Your task to perform on an android device: turn smart compose on in the gmail app Image 0: 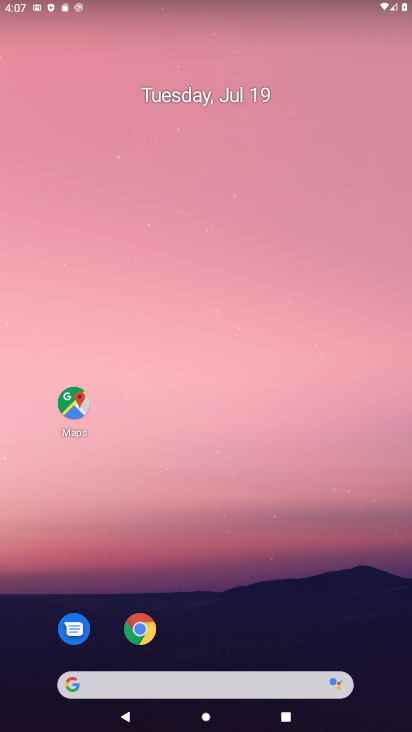
Step 0: click (132, 168)
Your task to perform on an android device: turn smart compose on in the gmail app Image 1: 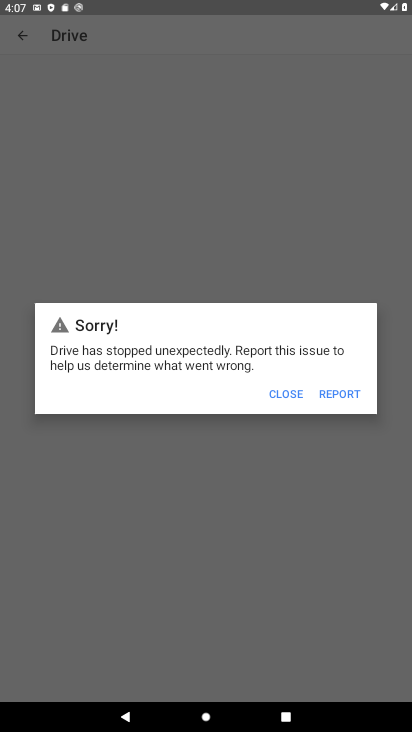
Step 1: drag from (226, 587) to (229, 167)
Your task to perform on an android device: turn smart compose on in the gmail app Image 2: 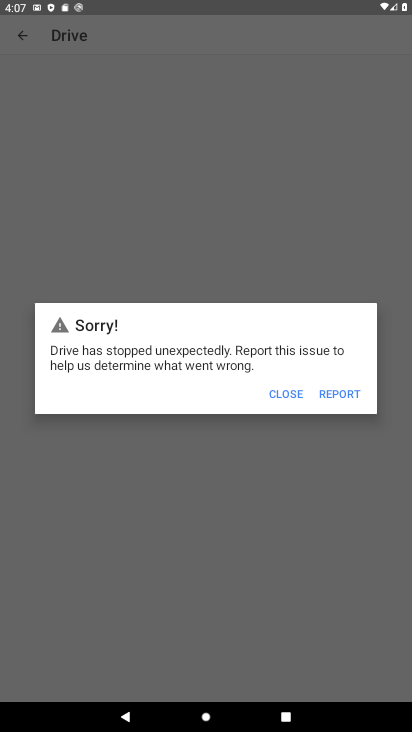
Step 2: click (196, 136)
Your task to perform on an android device: turn smart compose on in the gmail app Image 3: 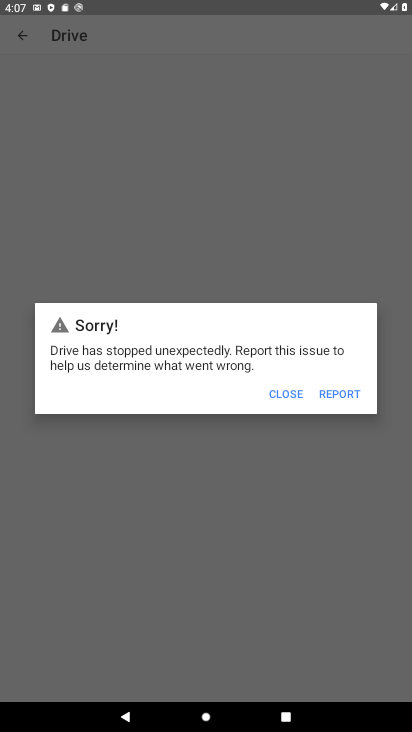
Step 3: click (287, 403)
Your task to perform on an android device: turn smart compose on in the gmail app Image 4: 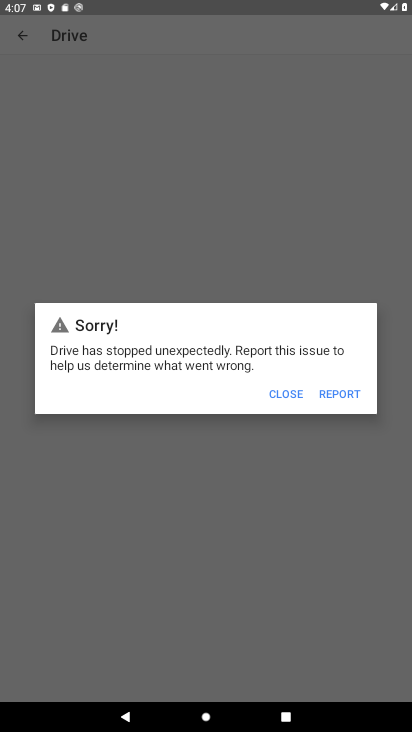
Step 4: click (287, 403)
Your task to perform on an android device: turn smart compose on in the gmail app Image 5: 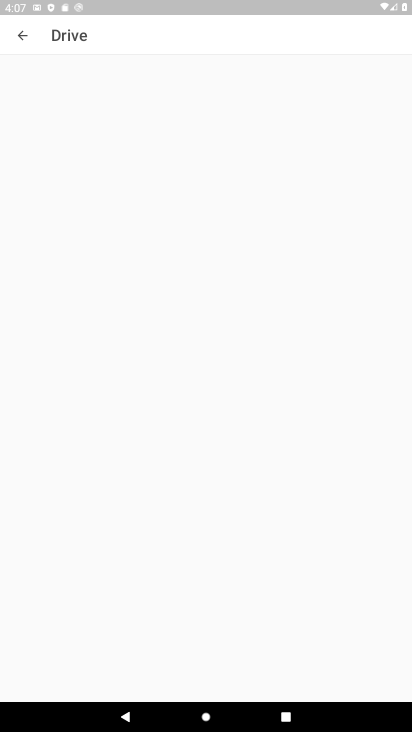
Step 5: click (287, 403)
Your task to perform on an android device: turn smart compose on in the gmail app Image 6: 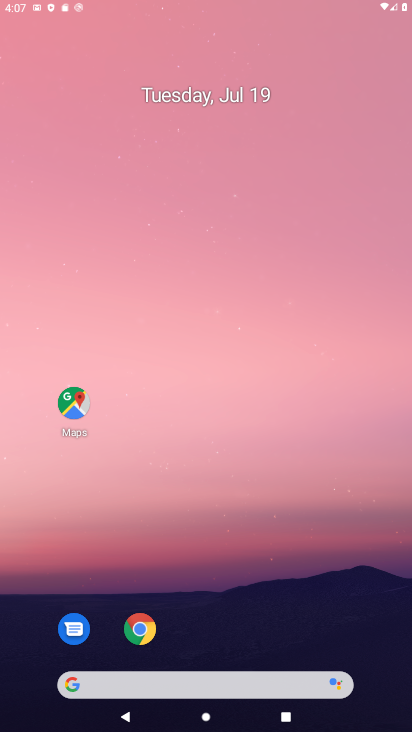
Step 6: drag from (259, 356) to (250, 232)
Your task to perform on an android device: turn smart compose on in the gmail app Image 7: 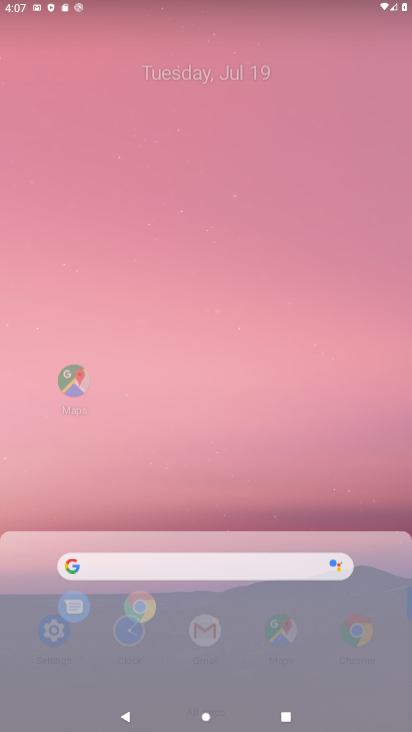
Step 7: drag from (216, 400) to (213, 314)
Your task to perform on an android device: turn smart compose on in the gmail app Image 8: 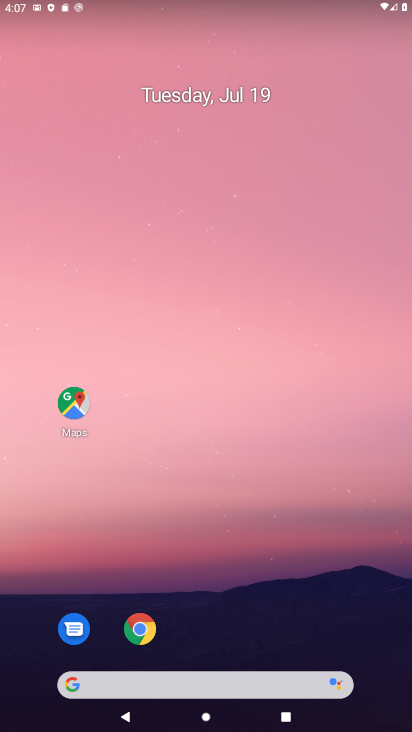
Step 8: drag from (281, 649) to (182, 174)
Your task to perform on an android device: turn smart compose on in the gmail app Image 9: 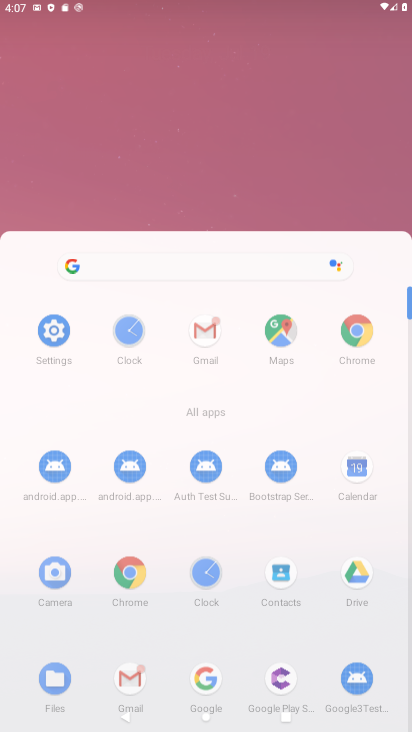
Step 9: drag from (278, 450) to (218, 84)
Your task to perform on an android device: turn smart compose on in the gmail app Image 10: 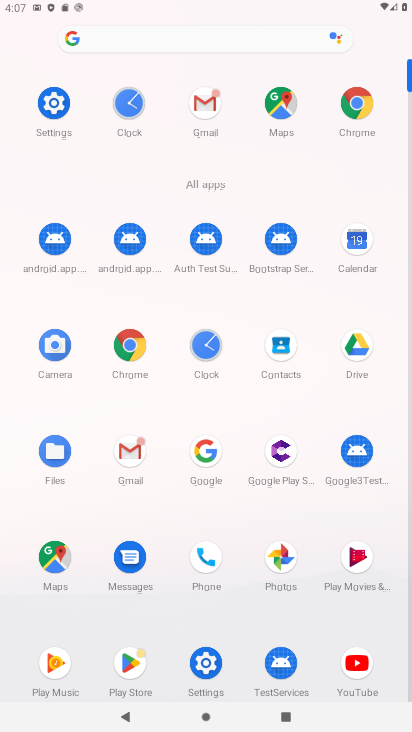
Step 10: click (116, 446)
Your task to perform on an android device: turn smart compose on in the gmail app Image 11: 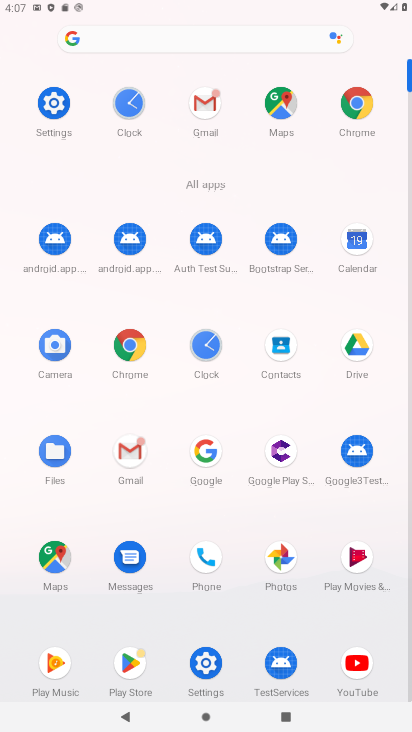
Step 11: click (129, 450)
Your task to perform on an android device: turn smart compose on in the gmail app Image 12: 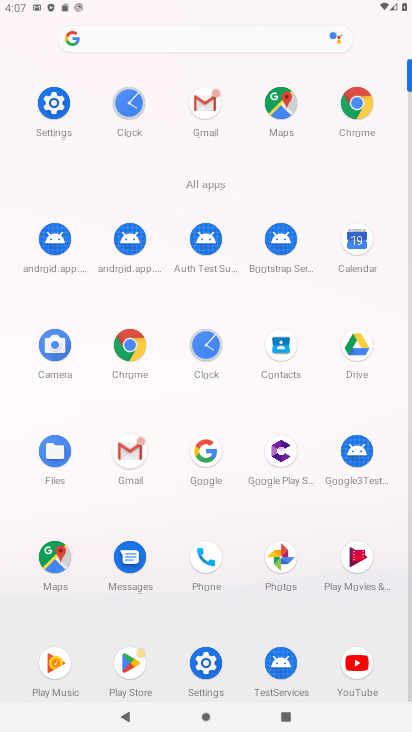
Step 12: click (129, 450)
Your task to perform on an android device: turn smart compose on in the gmail app Image 13: 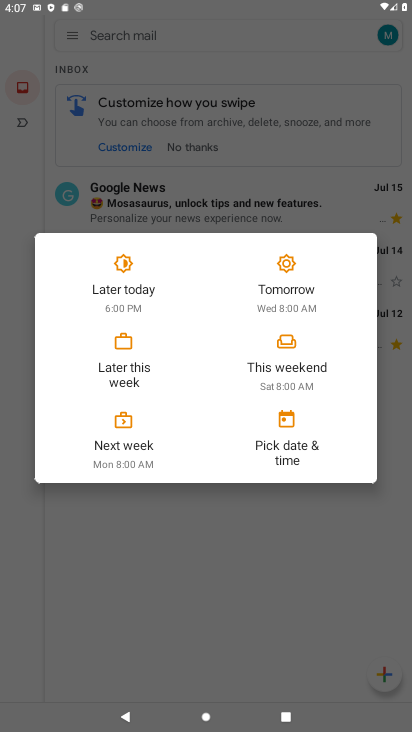
Step 13: click (285, 153)
Your task to perform on an android device: turn smart compose on in the gmail app Image 14: 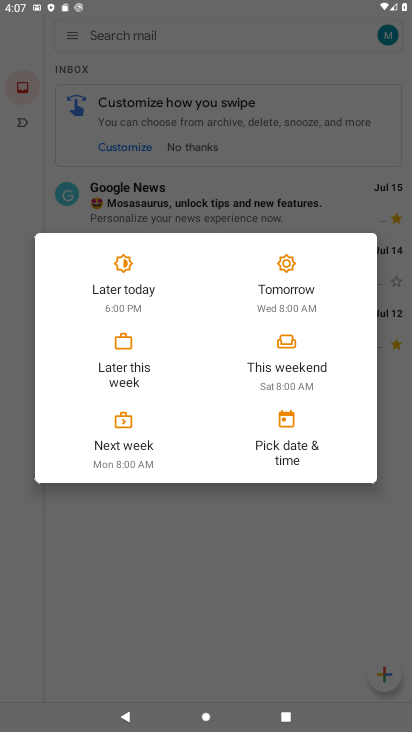
Step 14: click (294, 163)
Your task to perform on an android device: turn smart compose on in the gmail app Image 15: 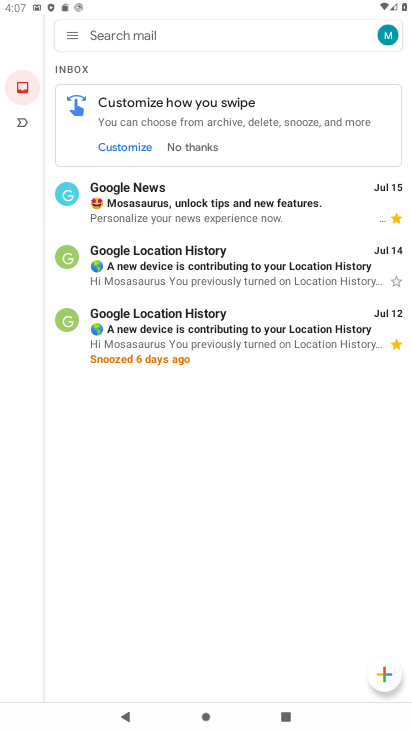
Step 15: press back button
Your task to perform on an android device: turn smart compose on in the gmail app Image 16: 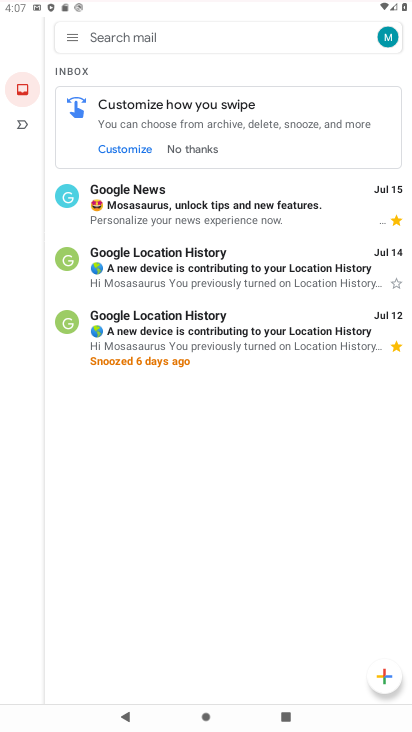
Step 16: click (64, 25)
Your task to perform on an android device: turn smart compose on in the gmail app Image 17: 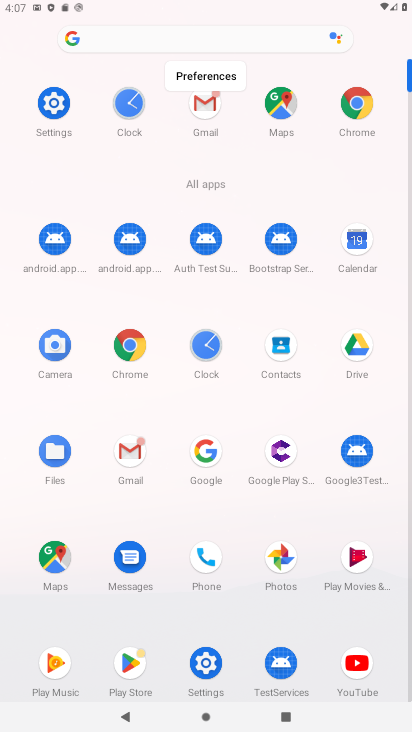
Step 17: click (206, 105)
Your task to perform on an android device: turn smart compose on in the gmail app Image 18: 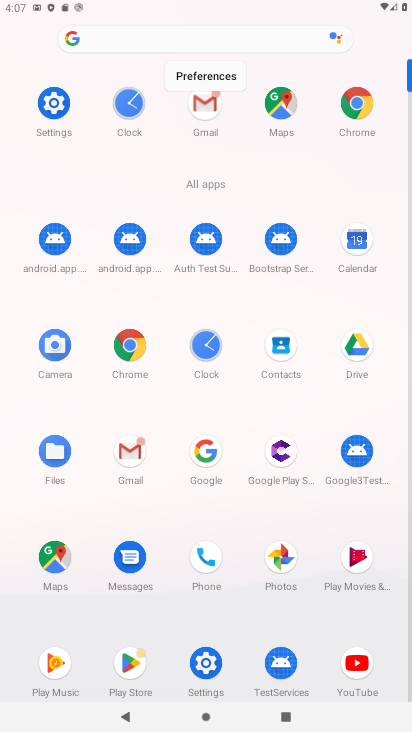
Step 18: click (207, 104)
Your task to perform on an android device: turn smart compose on in the gmail app Image 19: 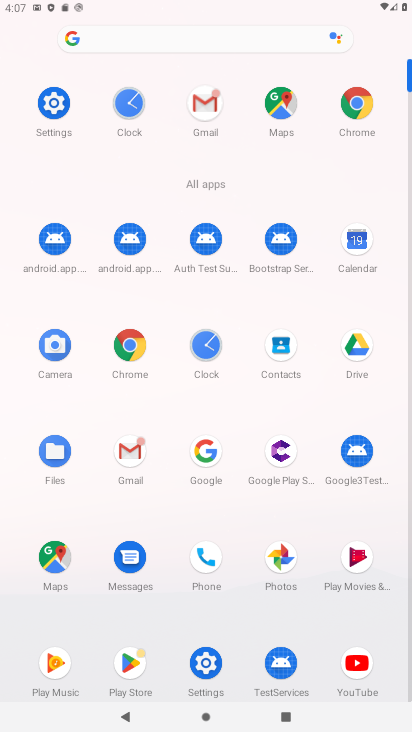
Step 19: click (207, 104)
Your task to perform on an android device: turn smart compose on in the gmail app Image 20: 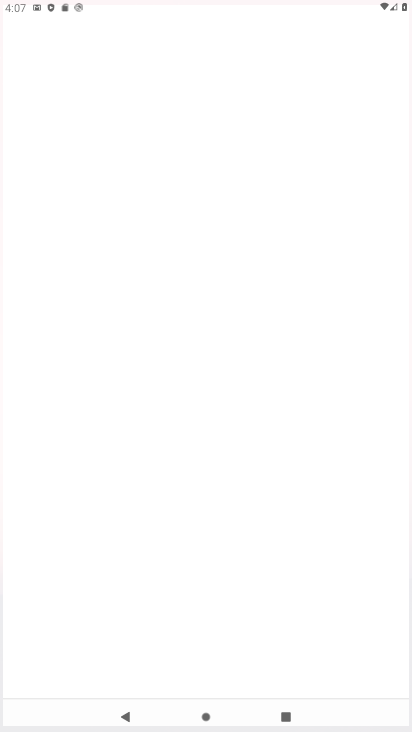
Step 20: click (205, 109)
Your task to perform on an android device: turn smart compose on in the gmail app Image 21: 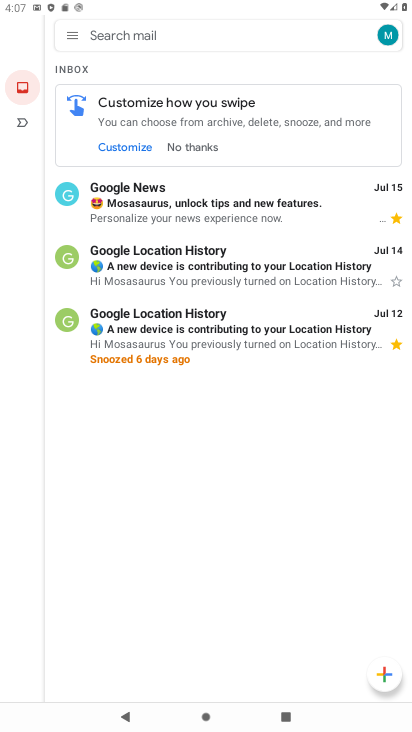
Step 21: click (42, 35)
Your task to perform on an android device: turn smart compose on in the gmail app Image 22: 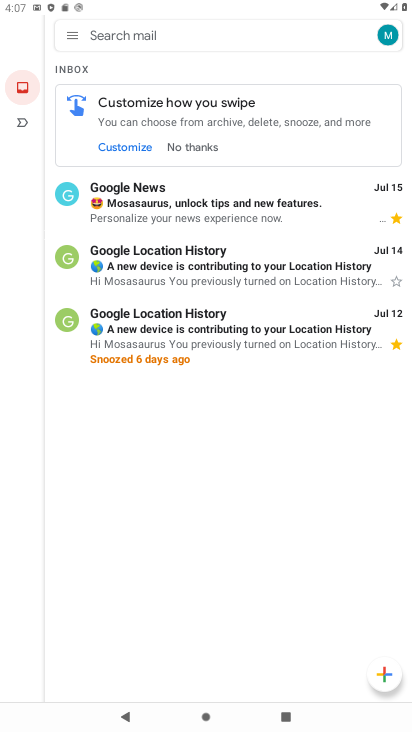
Step 22: drag from (41, 34) to (151, 601)
Your task to perform on an android device: turn smart compose on in the gmail app Image 23: 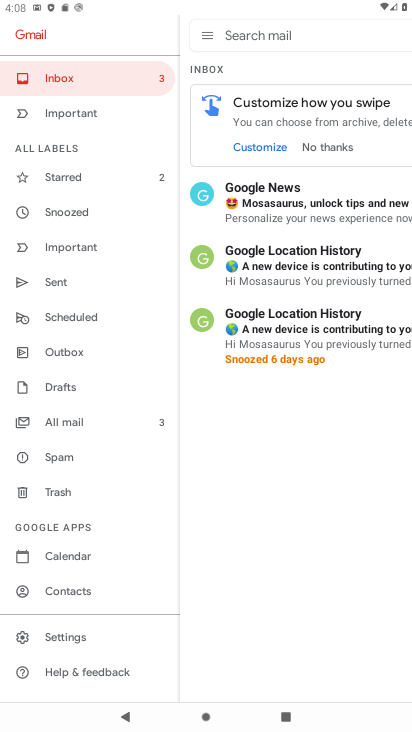
Step 23: click (75, 632)
Your task to perform on an android device: turn smart compose on in the gmail app Image 24: 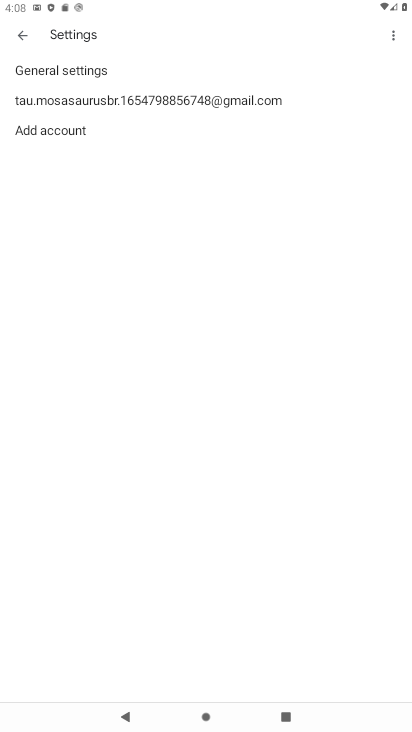
Step 24: click (112, 97)
Your task to perform on an android device: turn smart compose on in the gmail app Image 25: 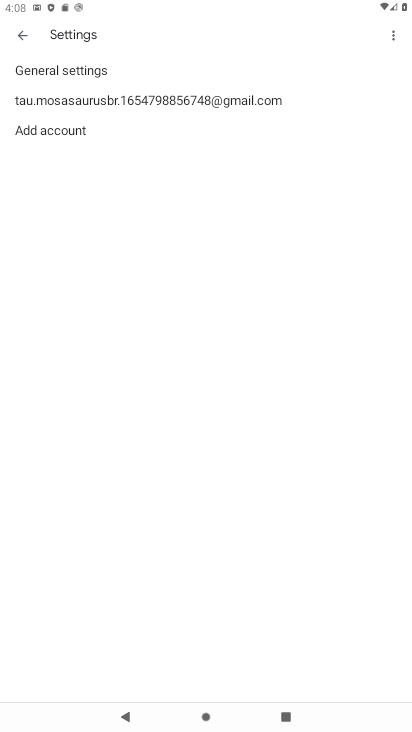
Step 25: click (110, 99)
Your task to perform on an android device: turn smart compose on in the gmail app Image 26: 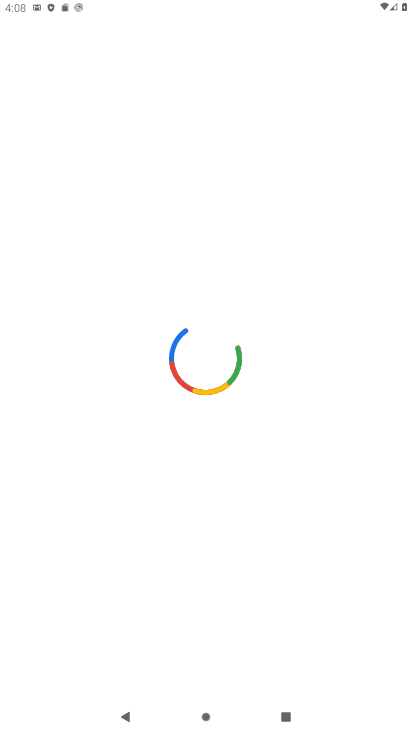
Step 26: press back button
Your task to perform on an android device: turn smart compose on in the gmail app Image 27: 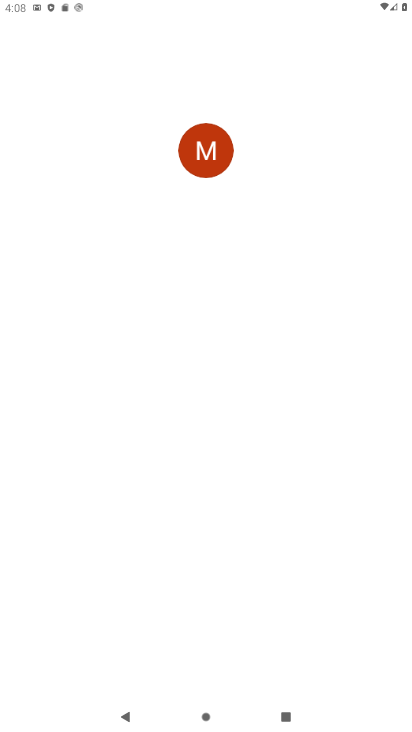
Step 27: press back button
Your task to perform on an android device: turn smart compose on in the gmail app Image 28: 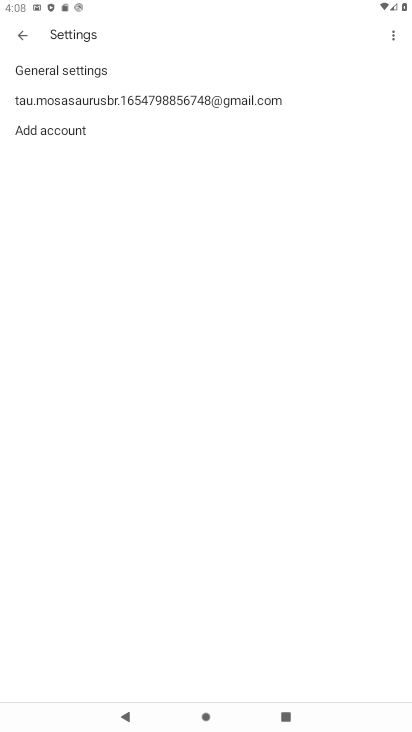
Step 28: click (79, 110)
Your task to perform on an android device: turn smart compose on in the gmail app Image 29: 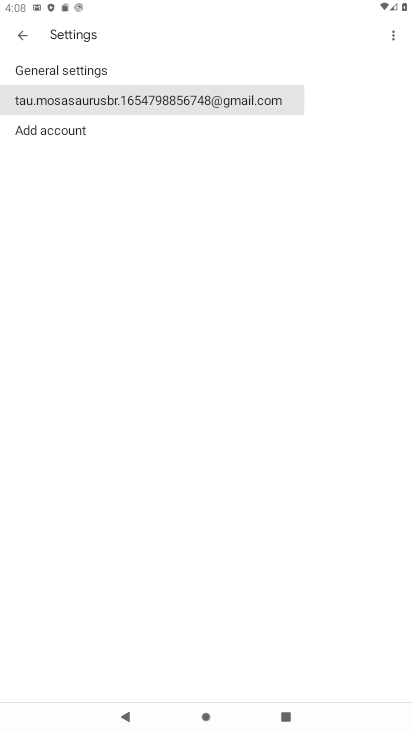
Step 29: click (83, 104)
Your task to perform on an android device: turn smart compose on in the gmail app Image 30: 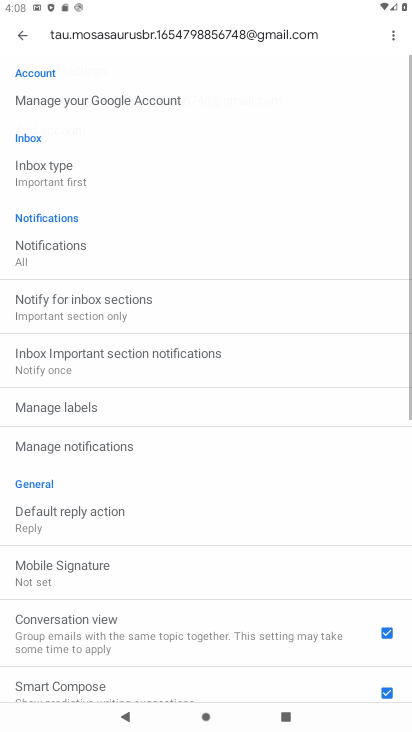
Step 30: click (81, 107)
Your task to perform on an android device: turn smart compose on in the gmail app Image 31: 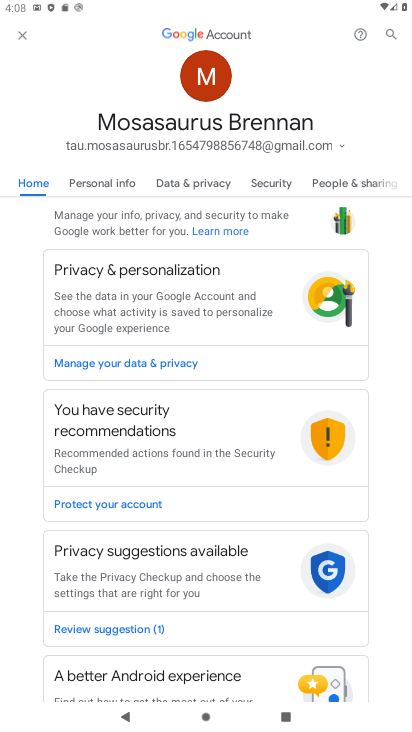
Step 31: click (13, 28)
Your task to perform on an android device: turn smart compose on in the gmail app Image 32: 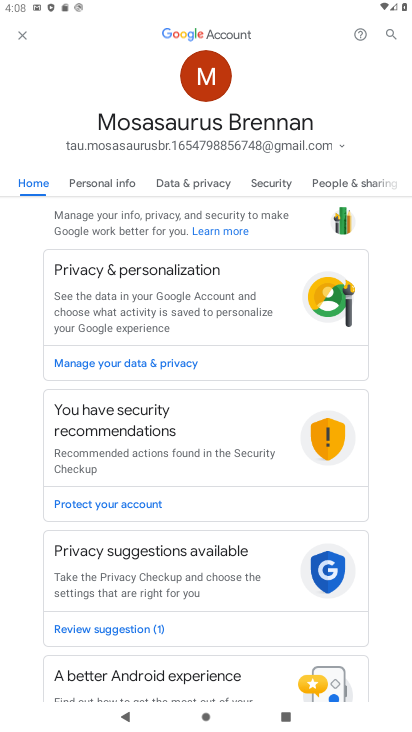
Step 32: click (14, 28)
Your task to perform on an android device: turn smart compose on in the gmail app Image 33: 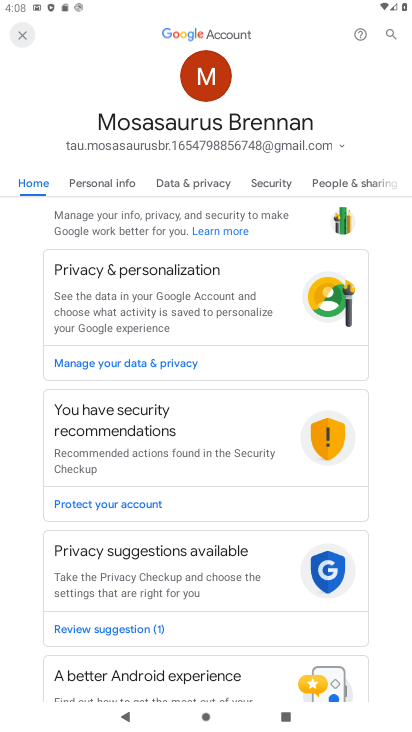
Step 33: click (14, 28)
Your task to perform on an android device: turn smart compose on in the gmail app Image 34: 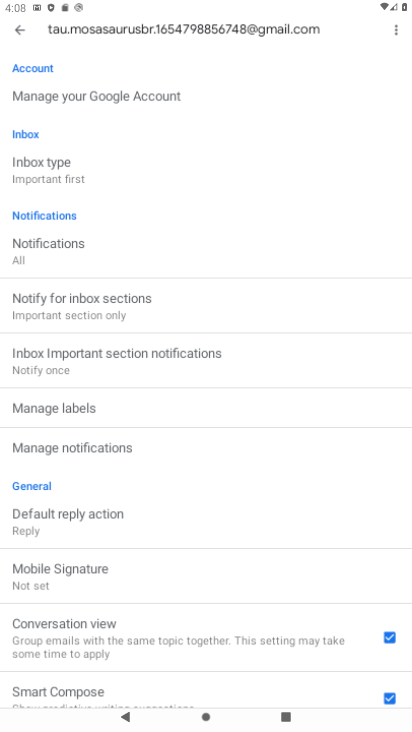
Step 34: click (14, 28)
Your task to perform on an android device: turn smart compose on in the gmail app Image 35: 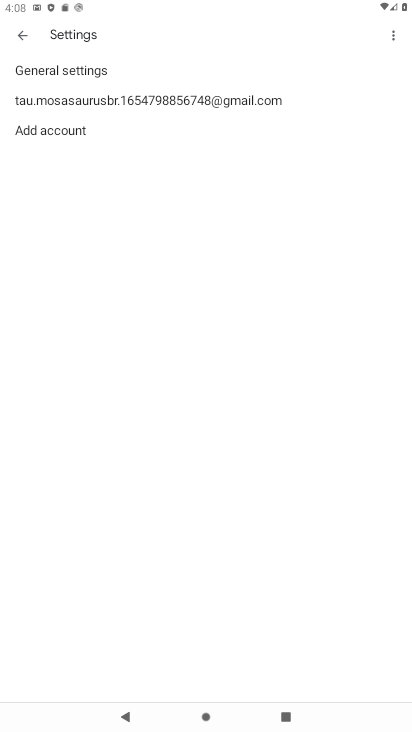
Step 35: click (175, 97)
Your task to perform on an android device: turn smart compose on in the gmail app Image 36: 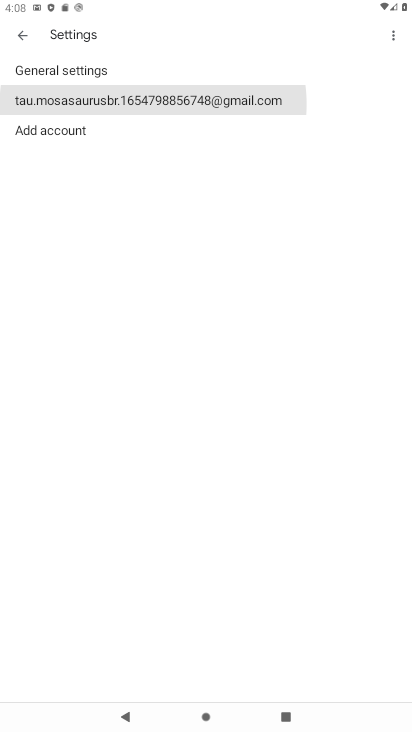
Step 36: click (175, 98)
Your task to perform on an android device: turn smart compose on in the gmail app Image 37: 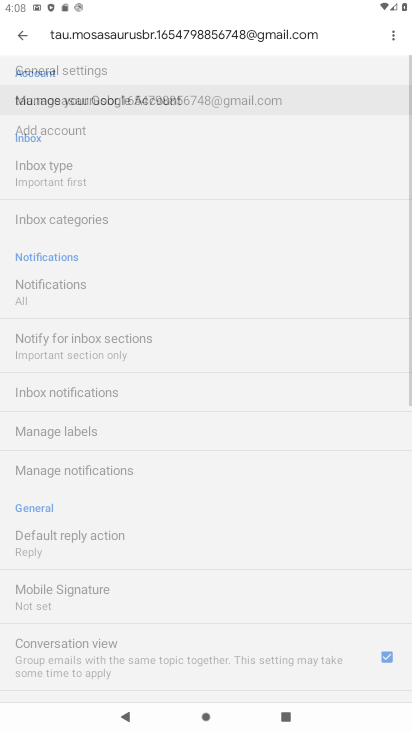
Step 37: click (175, 98)
Your task to perform on an android device: turn smart compose on in the gmail app Image 38: 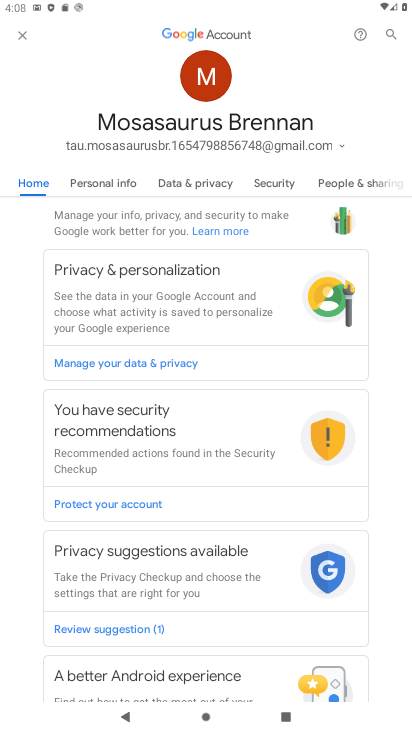
Step 38: drag from (102, 637) to (77, 341)
Your task to perform on an android device: turn smart compose on in the gmail app Image 39: 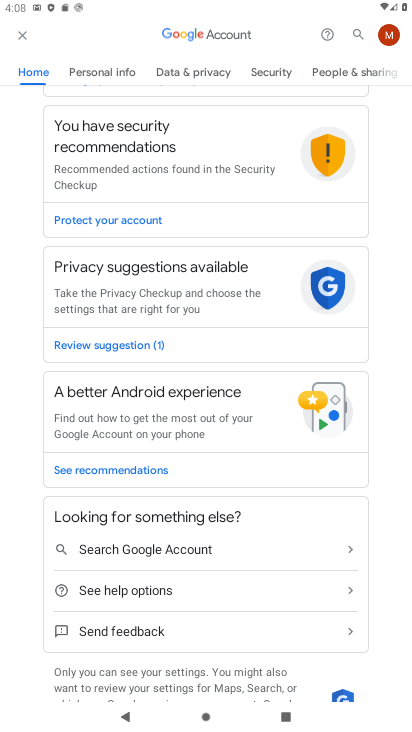
Step 39: click (27, 41)
Your task to perform on an android device: turn smart compose on in the gmail app Image 40: 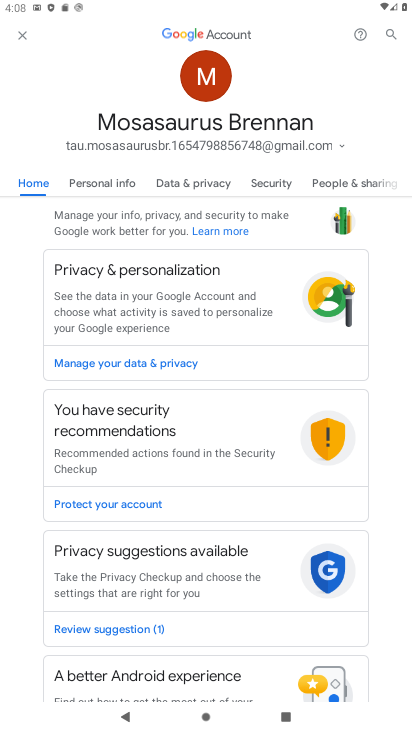
Step 40: click (17, 32)
Your task to perform on an android device: turn smart compose on in the gmail app Image 41: 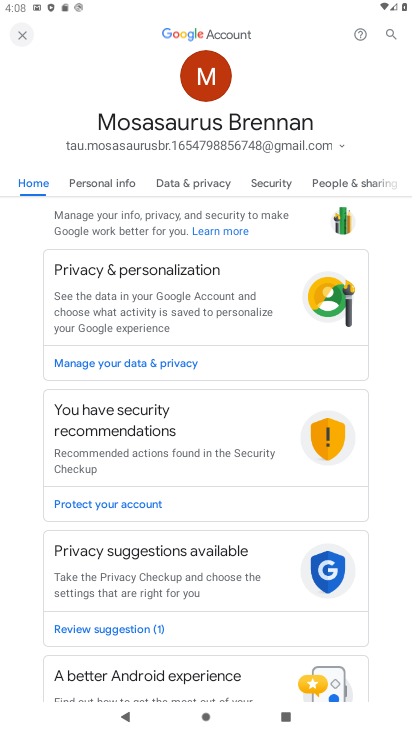
Step 41: click (17, 32)
Your task to perform on an android device: turn smart compose on in the gmail app Image 42: 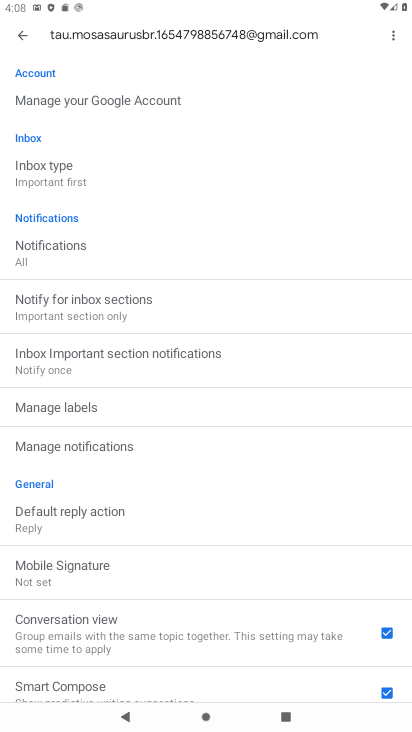
Step 42: click (17, 288)
Your task to perform on an android device: turn smart compose on in the gmail app Image 43: 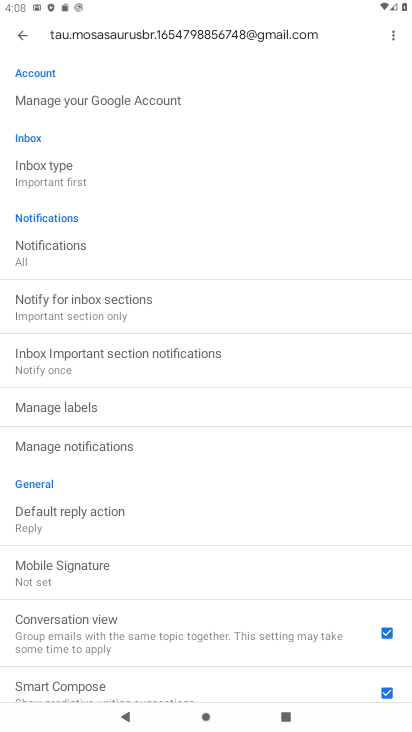
Step 43: drag from (55, 465) to (87, 240)
Your task to perform on an android device: turn smart compose on in the gmail app Image 44: 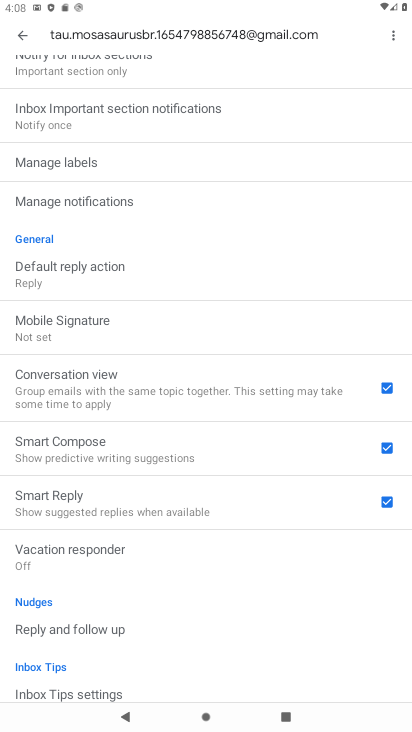
Step 44: click (390, 446)
Your task to perform on an android device: turn smart compose on in the gmail app Image 45: 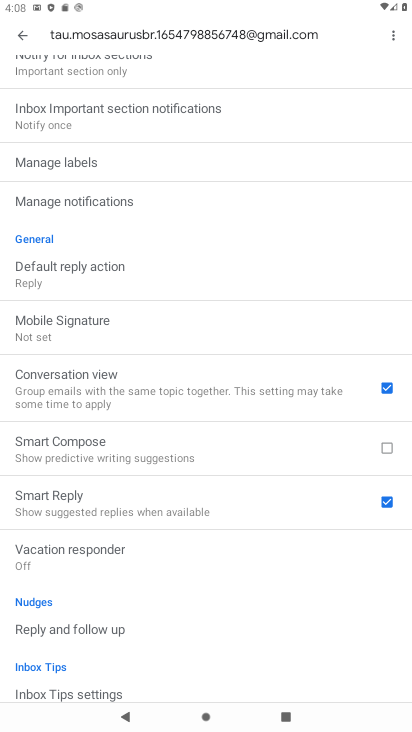
Step 45: click (380, 453)
Your task to perform on an android device: turn smart compose on in the gmail app Image 46: 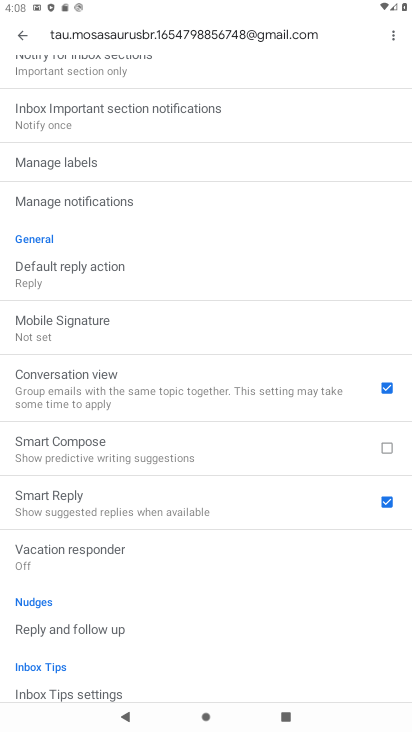
Step 46: click (389, 452)
Your task to perform on an android device: turn smart compose on in the gmail app Image 47: 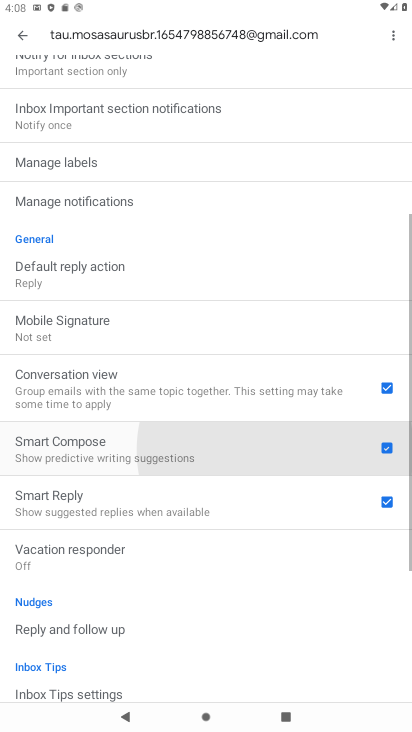
Step 47: click (389, 452)
Your task to perform on an android device: turn smart compose on in the gmail app Image 48: 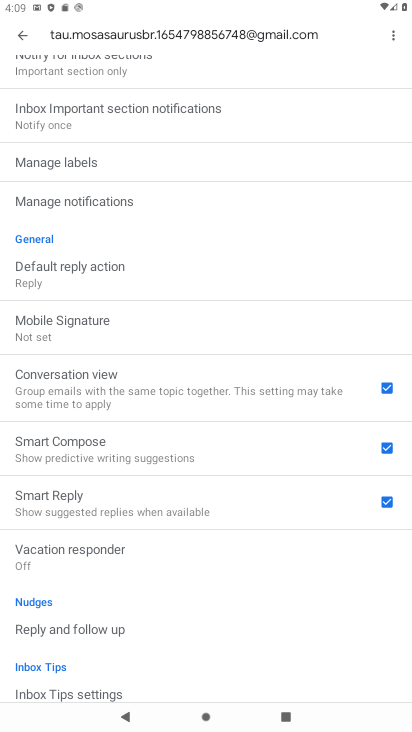
Step 48: task complete